Your task to perform on an android device: allow notifications from all sites in the chrome app Image 0: 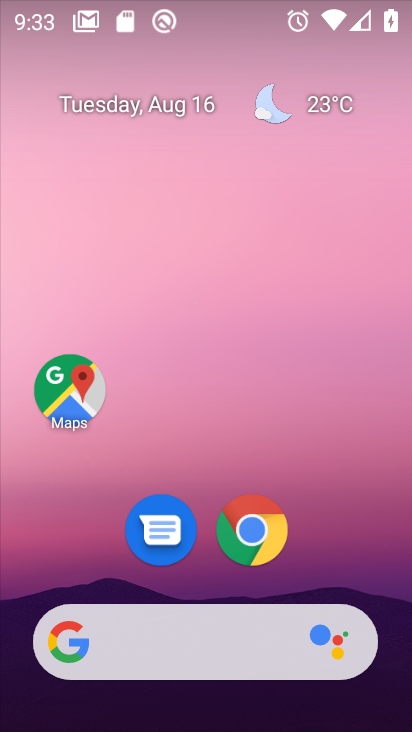
Step 0: drag from (352, 570) to (344, 86)
Your task to perform on an android device: allow notifications from all sites in the chrome app Image 1: 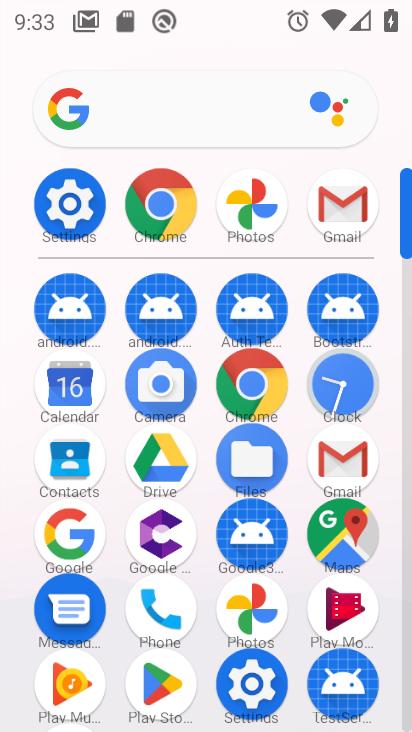
Step 1: click (250, 382)
Your task to perform on an android device: allow notifications from all sites in the chrome app Image 2: 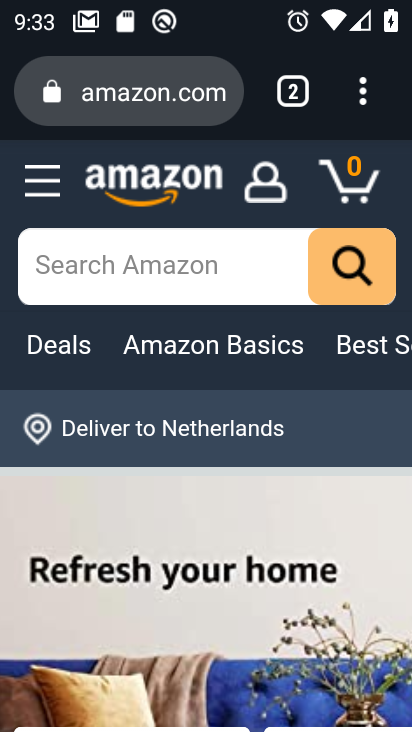
Step 2: drag from (379, 83) to (175, 563)
Your task to perform on an android device: allow notifications from all sites in the chrome app Image 3: 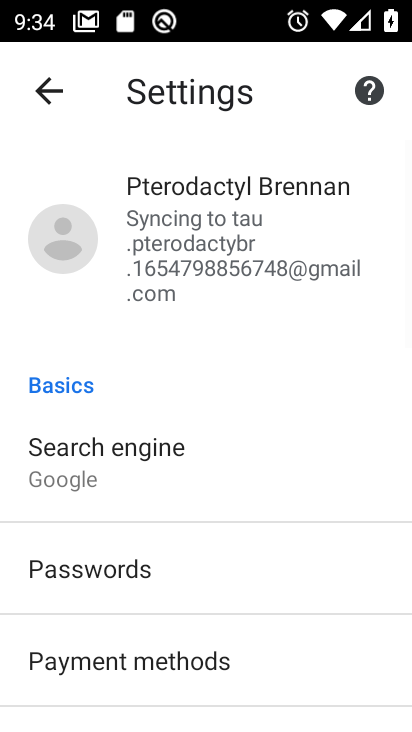
Step 3: drag from (274, 611) to (355, 254)
Your task to perform on an android device: allow notifications from all sites in the chrome app Image 4: 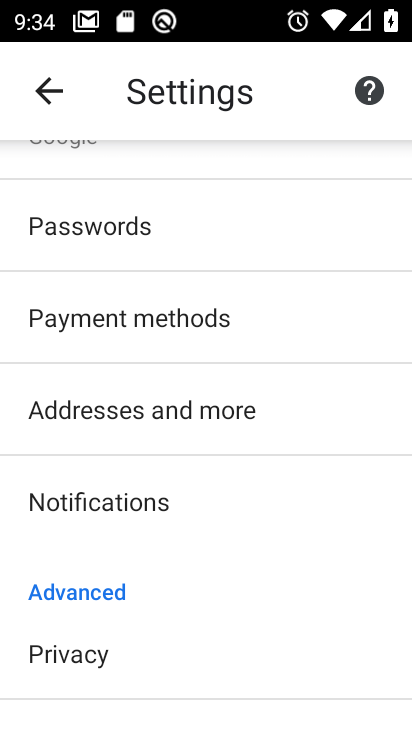
Step 4: click (126, 496)
Your task to perform on an android device: allow notifications from all sites in the chrome app Image 5: 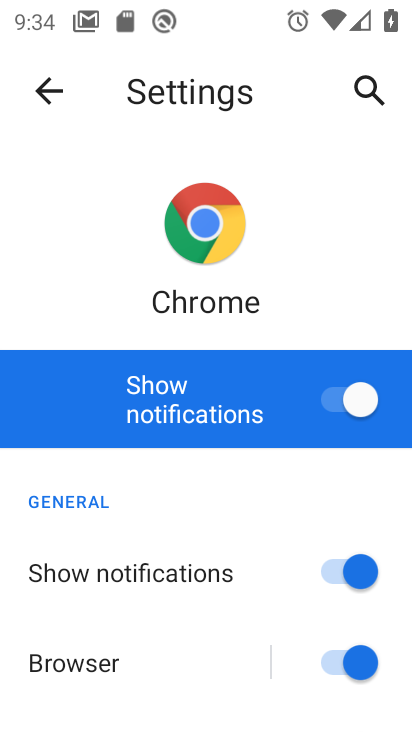
Step 5: task complete